Your task to perform on an android device: toggle pop-ups in chrome Image 0: 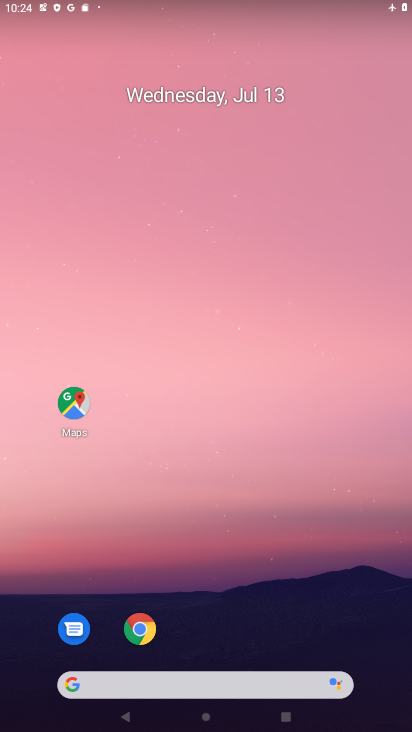
Step 0: click (153, 643)
Your task to perform on an android device: toggle pop-ups in chrome Image 1: 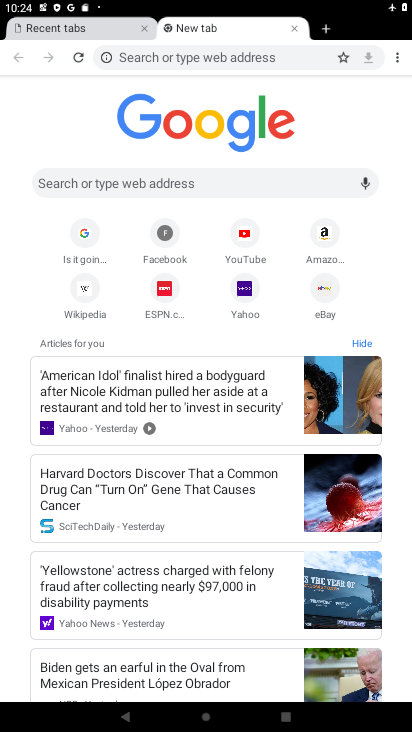
Step 1: click (403, 53)
Your task to perform on an android device: toggle pop-ups in chrome Image 2: 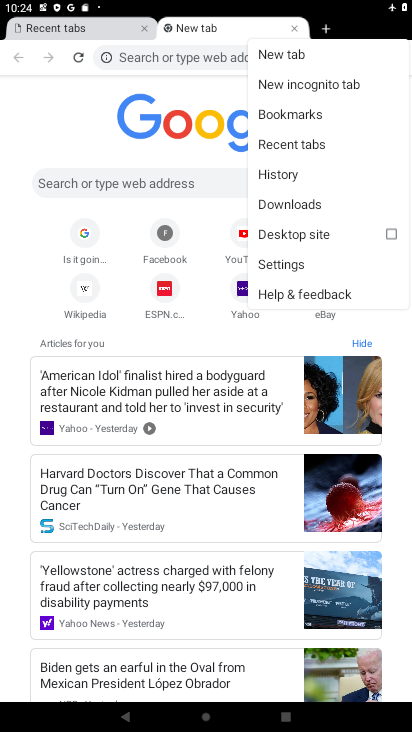
Step 2: click (295, 271)
Your task to perform on an android device: toggle pop-ups in chrome Image 3: 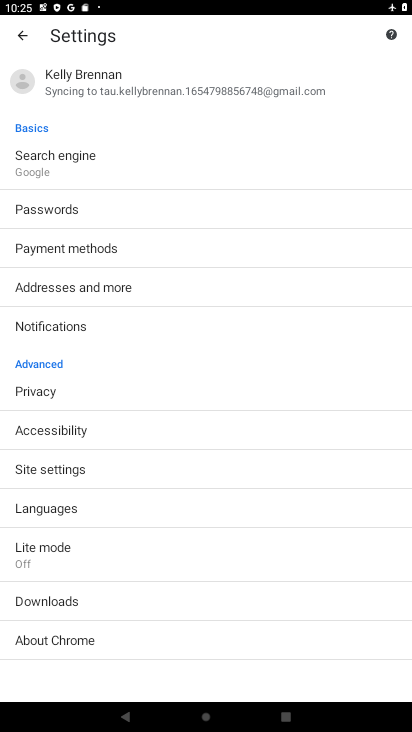
Step 3: click (139, 480)
Your task to perform on an android device: toggle pop-ups in chrome Image 4: 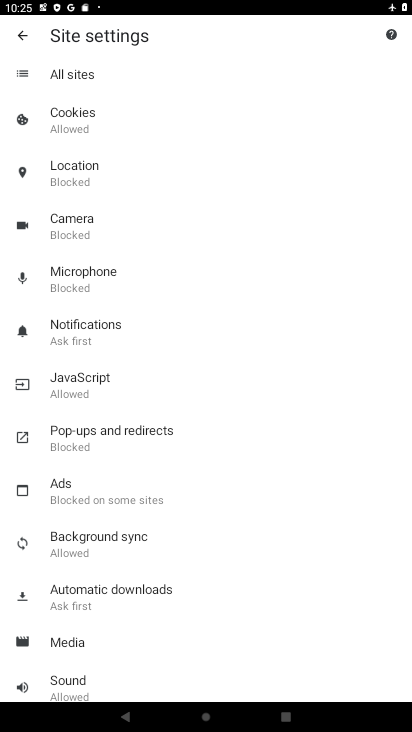
Step 4: click (165, 453)
Your task to perform on an android device: toggle pop-ups in chrome Image 5: 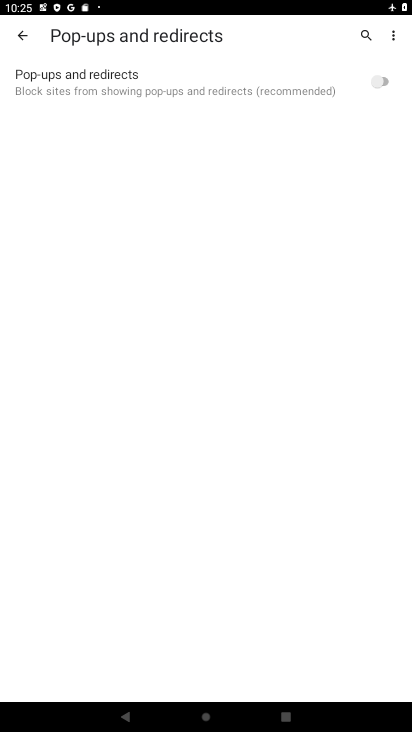
Step 5: click (393, 91)
Your task to perform on an android device: toggle pop-ups in chrome Image 6: 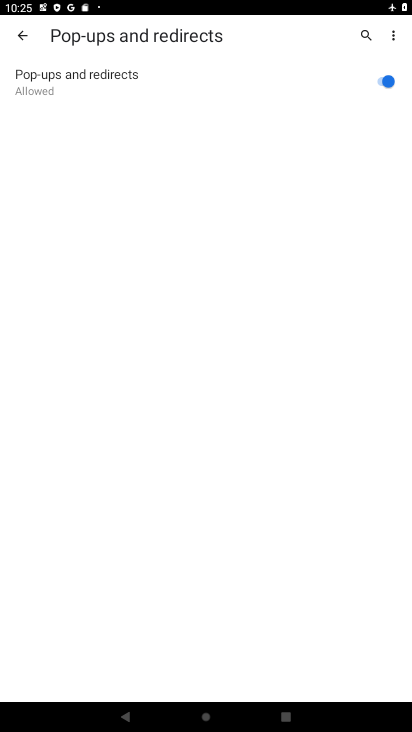
Step 6: task complete